Your task to perform on an android device: Go to battery settings Image 0: 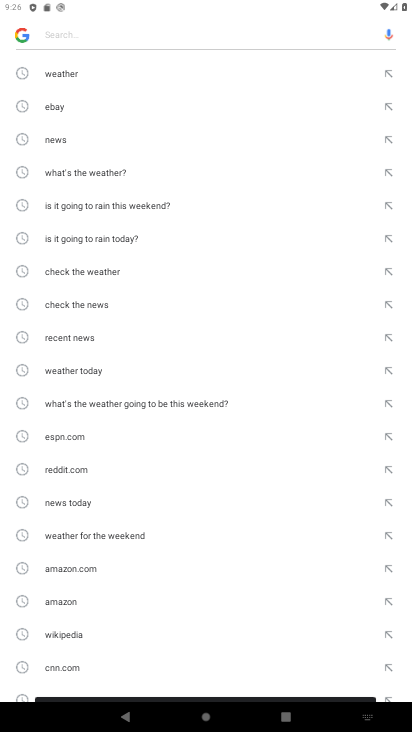
Step 0: press home button
Your task to perform on an android device: Go to battery settings Image 1: 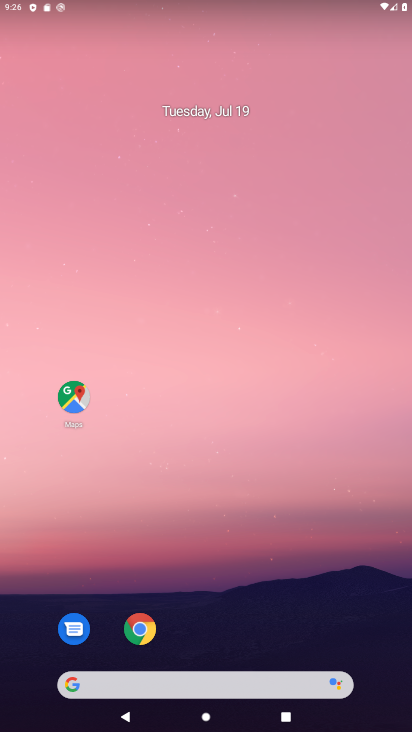
Step 1: drag from (242, 557) to (244, 298)
Your task to perform on an android device: Go to battery settings Image 2: 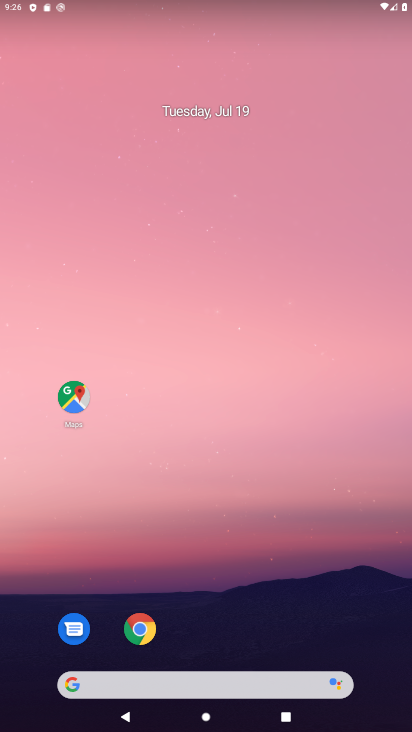
Step 2: drag from (266, 580) to (256, 373)
Your task to perform on an android device: Go to battery settings Image 3: 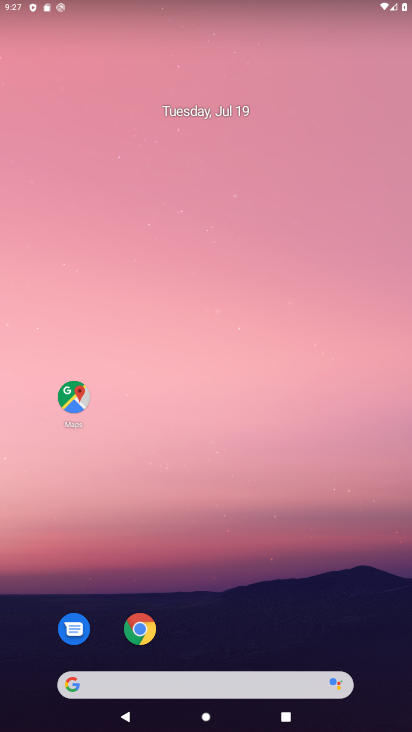
Step 3: drag from (247, 607) to (227, 189)
Your task to perform on an android device: Go to battery settings Image 4: 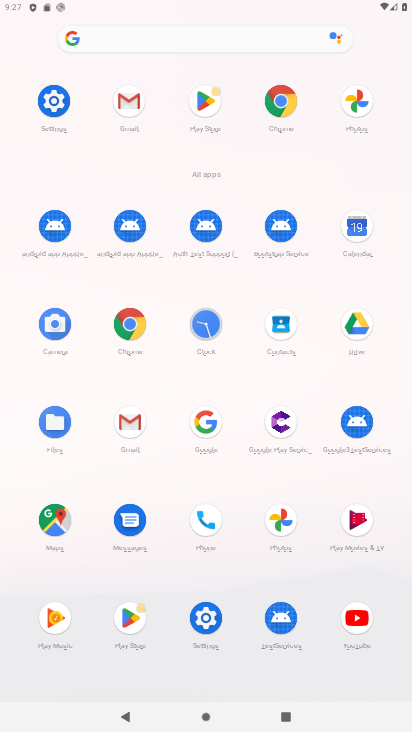
Step 4: click (51, 109)
Your task to perform on an android device: Go to battery settings Image 5: 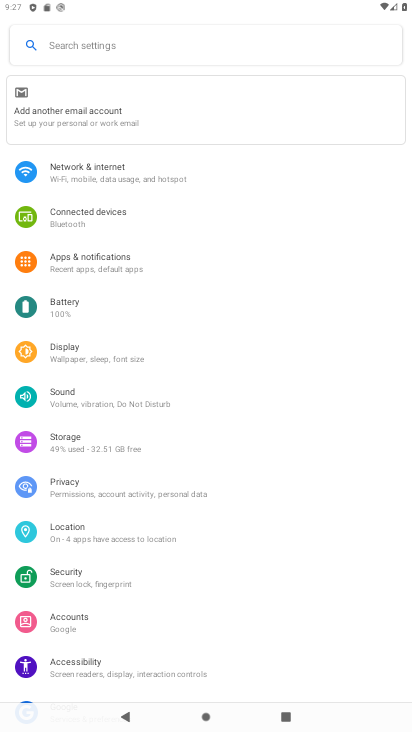
Step 5: click (59, 308)
Your task to perform on an android device: Go to battery settings Image 6: 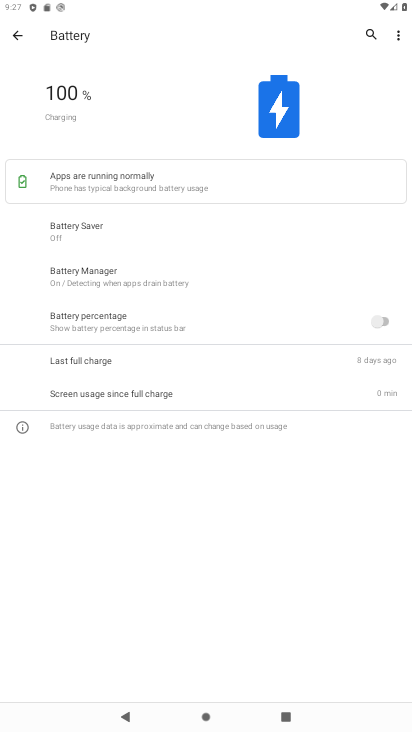
Step 6: task complete